Your task to perform on an android device: Show me popular games on the Play Store Image 0: 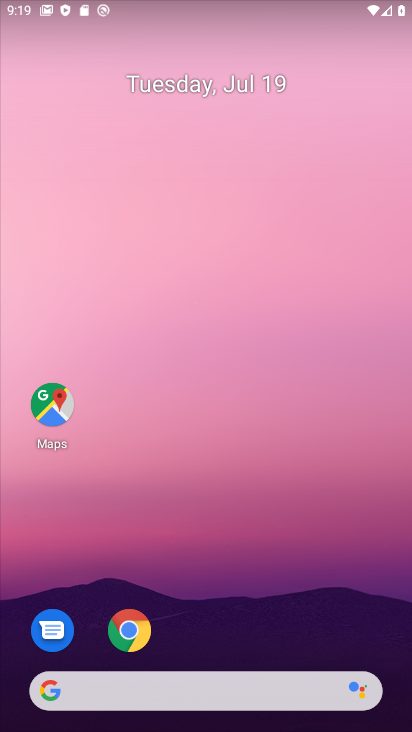
Step 0: drag from (211, 649) to (215, 13)
Your task to perform on an android device: Show me popular games on the Play Store Image 1: 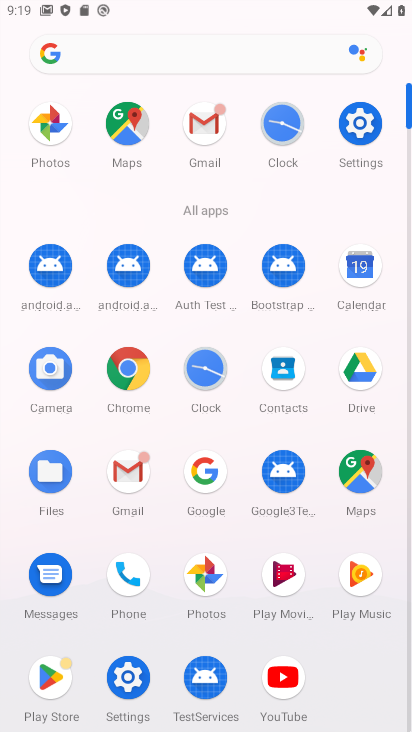
Step 1: click (51, 671)
Your task to perform on an android device: Show me popular games on the Play Store Image 2: 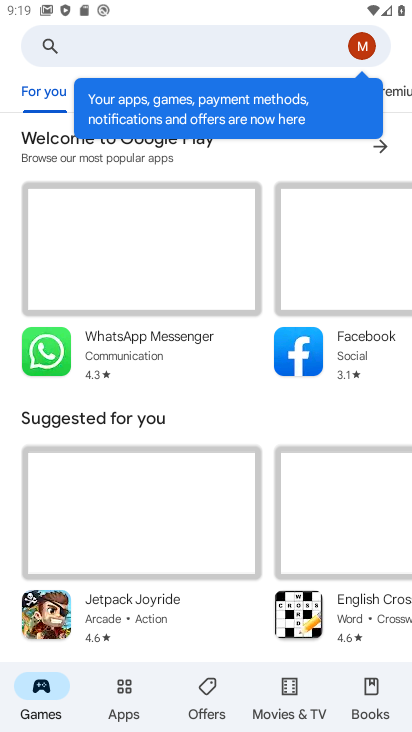
Step 2: click (120, 97)
Your task to perform on an android device: Show me popular games on the Play Store Image 3: 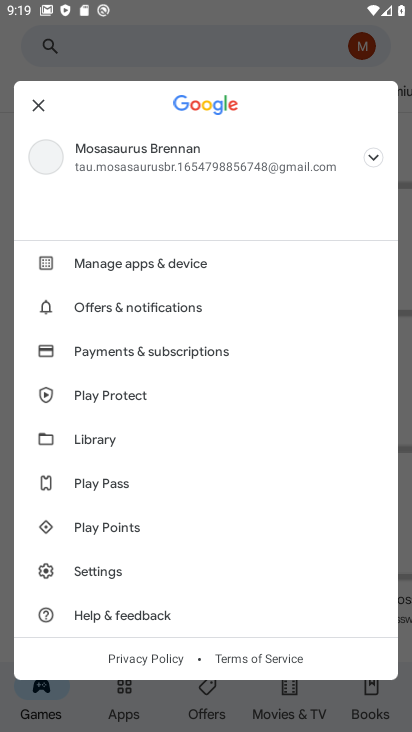
Step 3: click (158, 91)
Your task to perform on an android device: Show me popular games on the Play Store Image 4: 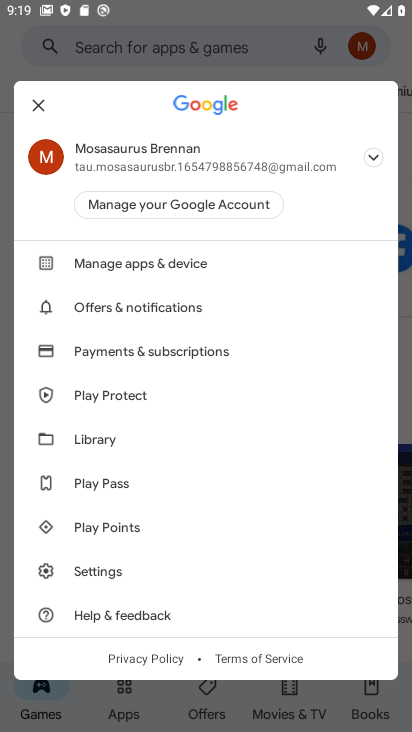
Step 4: click (33, 103)
Your task to perform on an android device: Show me popular games on the Play Store Image 5: 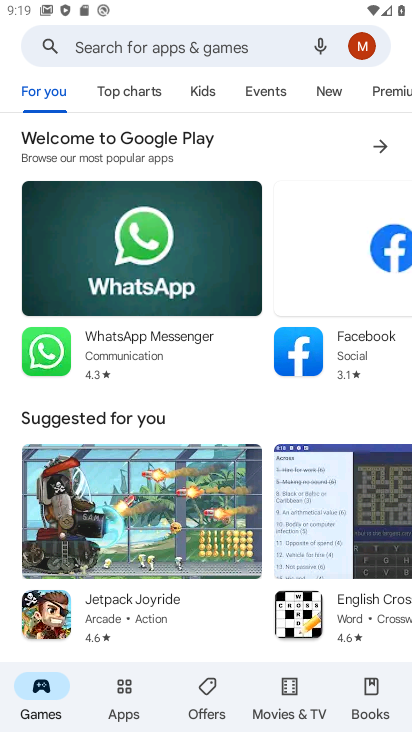
Step 5: click (135, 91)
Your task to perform on an android device: Show me popular games on the Play Store Image 6: 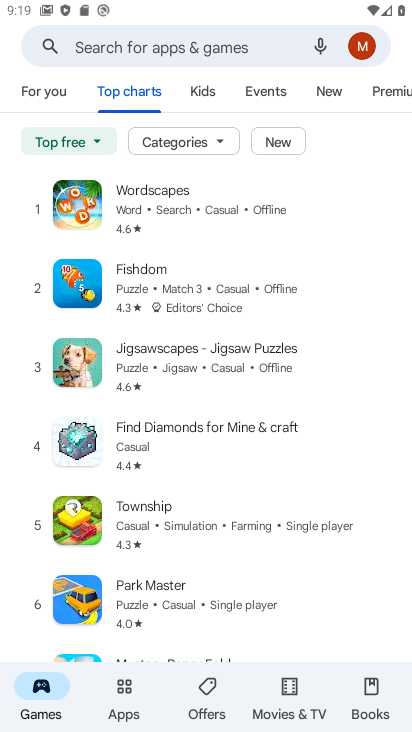
Step 6: task complete